Your task to perform on an android device: turn off improve location accuracy Image 0: 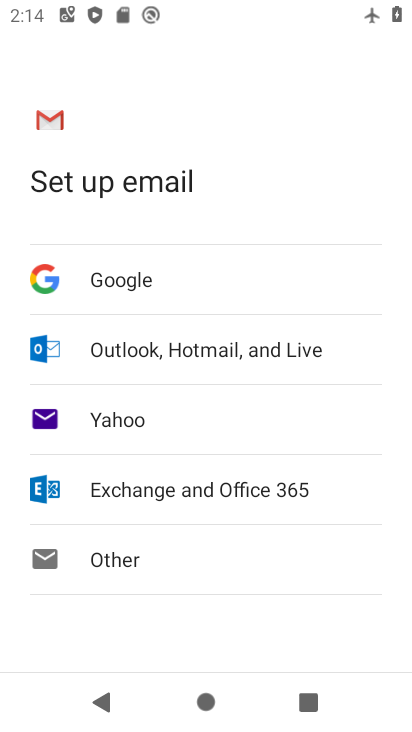
Step 0: press home button
Your task to perform on an android device: turn off improve location accuracy Image 1: 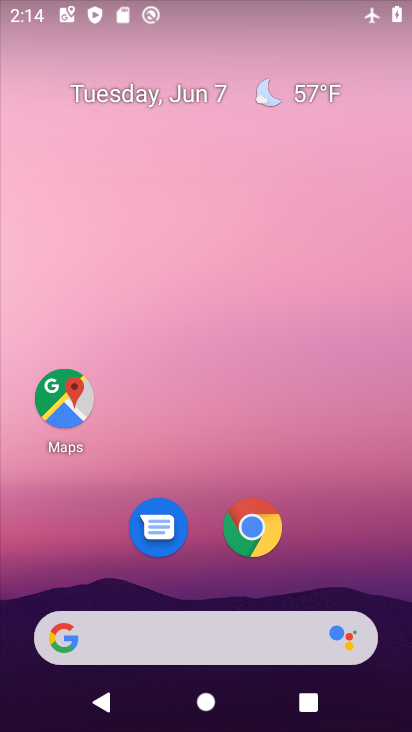
Step 1: drag from (346, 583) to (270, 206)
Your task to perform on an android device: turn off improve location accuracy Image 2: 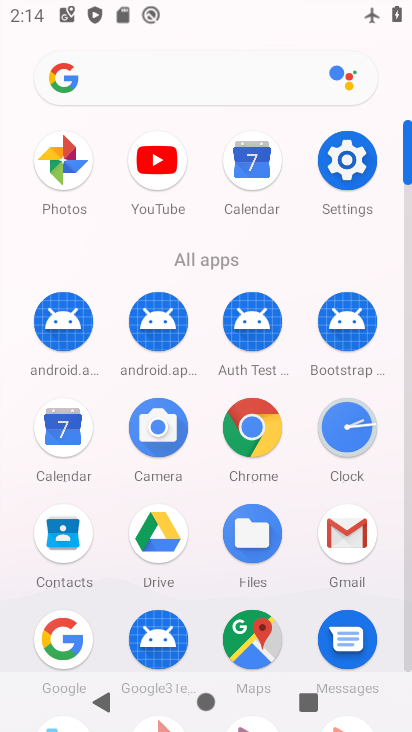
Step 2: click (349, 148)
Your task to perform on an android device: turn off improve location accuracy Image 3: 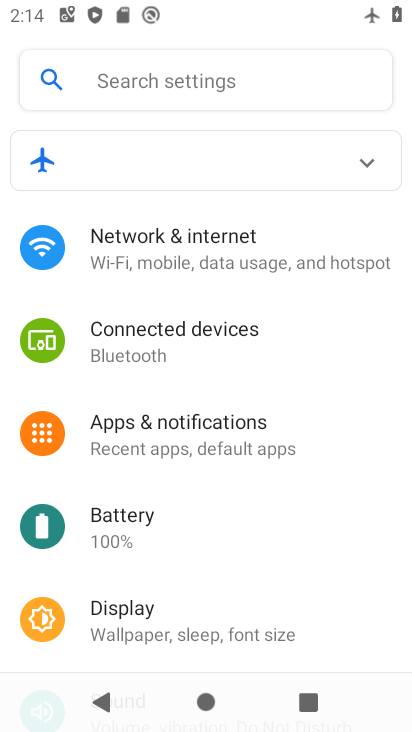
Step 3: drag from (255, 624) to (132, 167)
Your task to perform on an android device: turn off improve location accuracy Image 4: 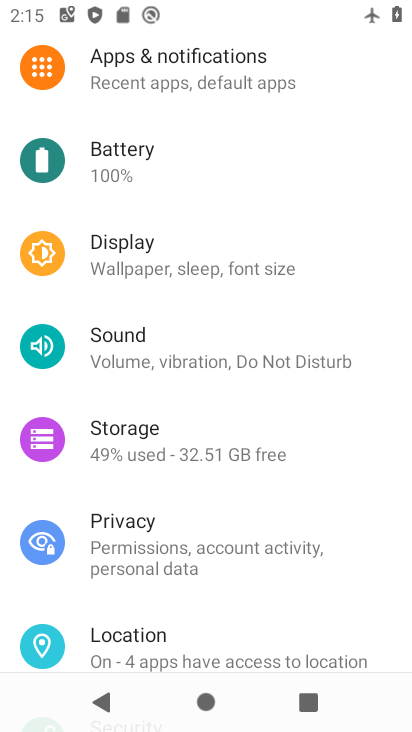
Step 4: click (249, 649)
Your task to perform on an android device: turn off improve location accuracy Image 5: 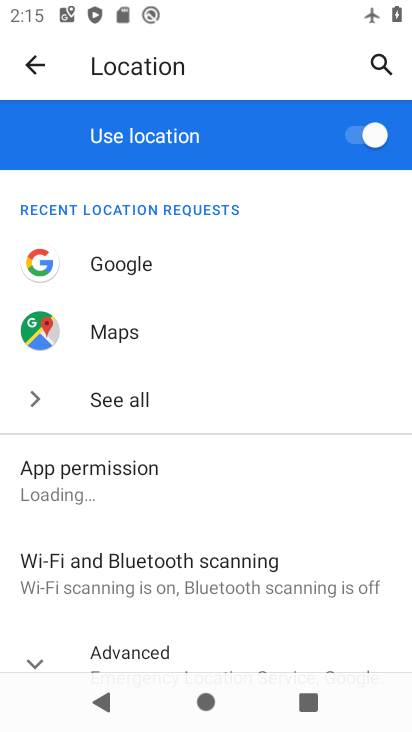
Step 5: drag from (278, 647) to (215, 229)
Your task to perform on an android device: turn off improve location accuracy Image 6: 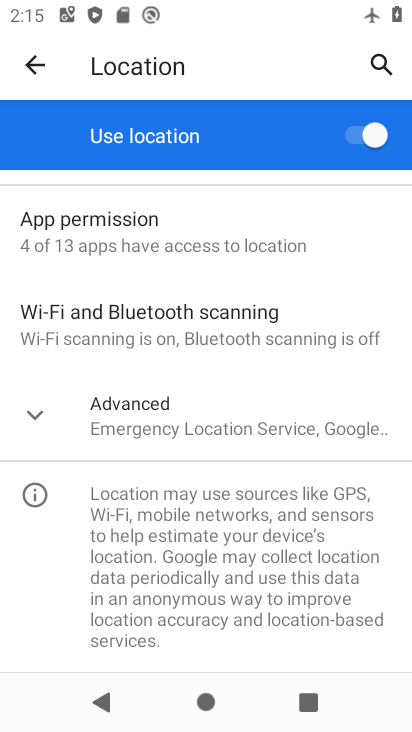
Step 6: click (259, 413)
Your task to perform on an android device: turn off improve location accuracy Image 7: 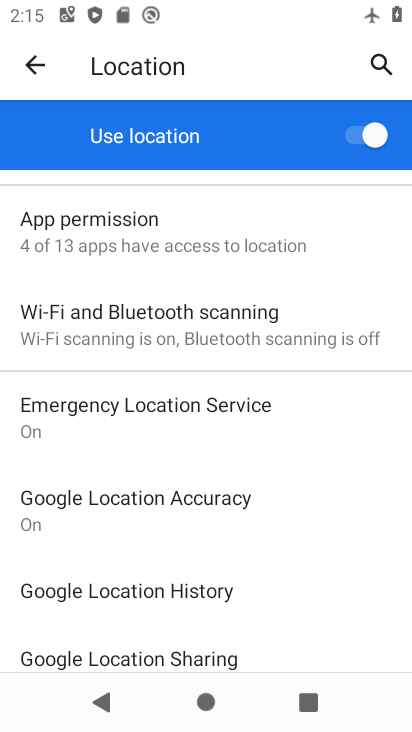
Step 7: click (277, 507)
Your task to perform on an android device: turn off improve location accuracy Image 8: 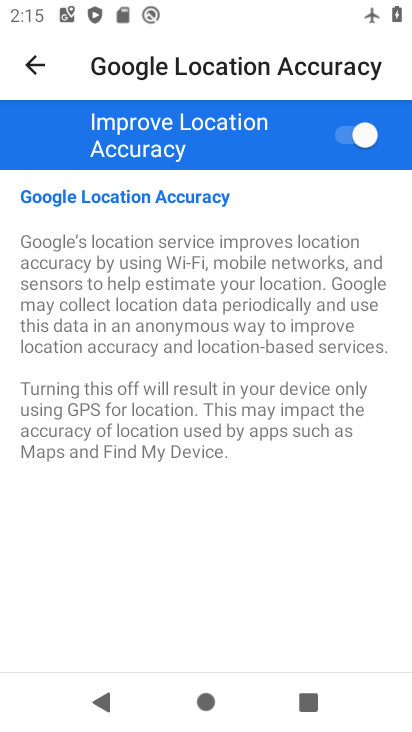
Step 8: click (358, 133)
Your task to perform on an android device: turn off improve location accuracy Image 9: 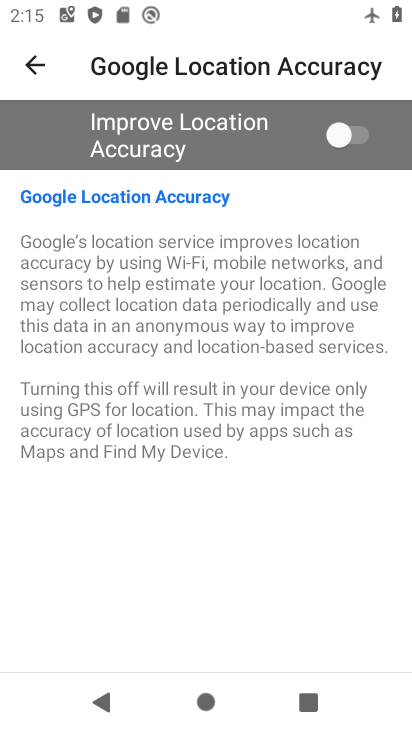
Step 9: task complete